Your task to perform on an android device: find photos in the google photos app Image 0: 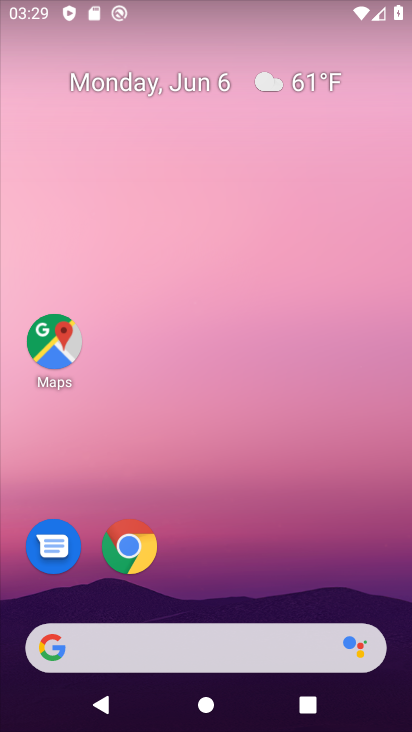
Step 0: press home button
Your task to perform on an android device: find photos in the google photos app Image 1: 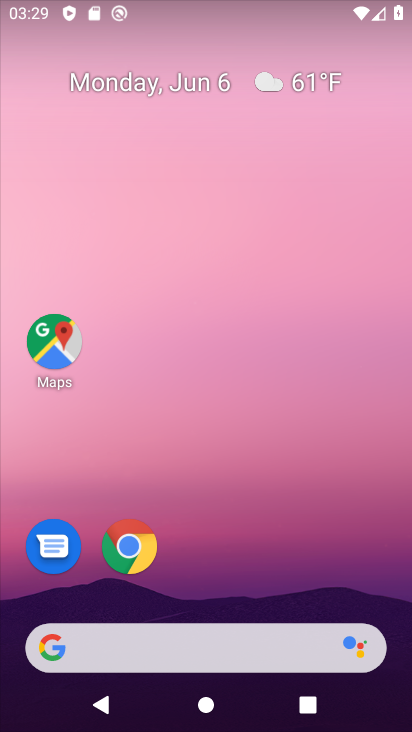
Step 1: drag from (246, 598) to (323, 57)
Your task to perform on an android device: find photos in the google photos app Image 2: 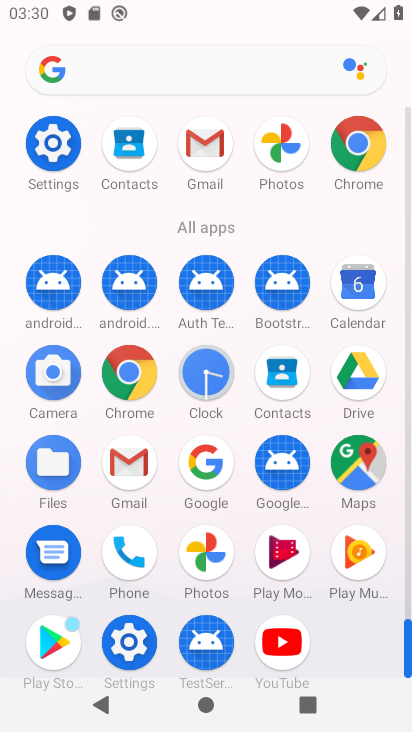
Step 2: click (282, 144)
Your task to perform on an android device: find photos in the google photos app Image 3: 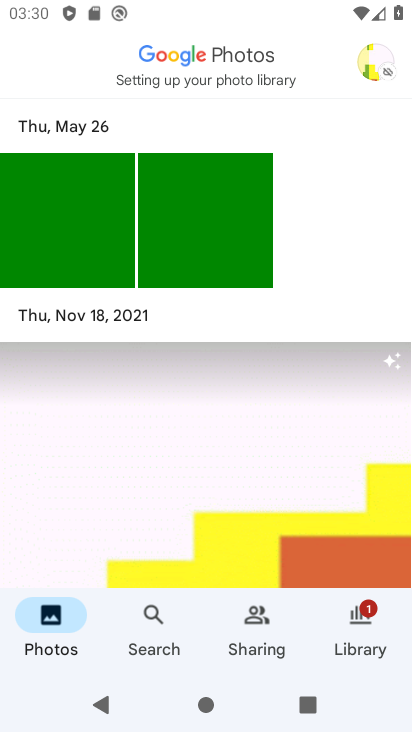
Step 3: click (71, 608)
Your task to perform on an android device: find photos in the google photos app Image 4: 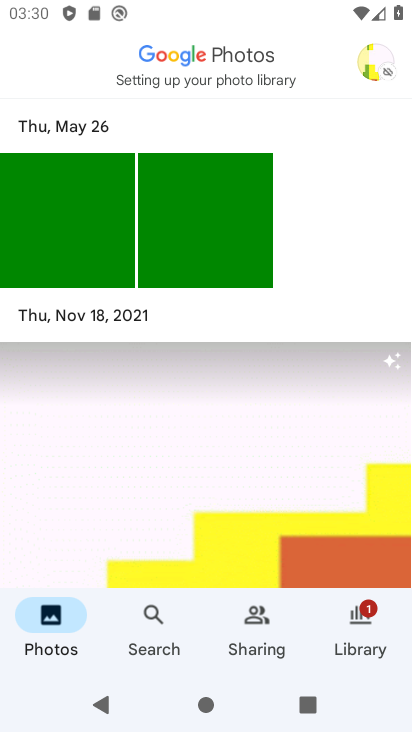
Step 4: task complete